Your task to perform on an android device: check storage Image 0: 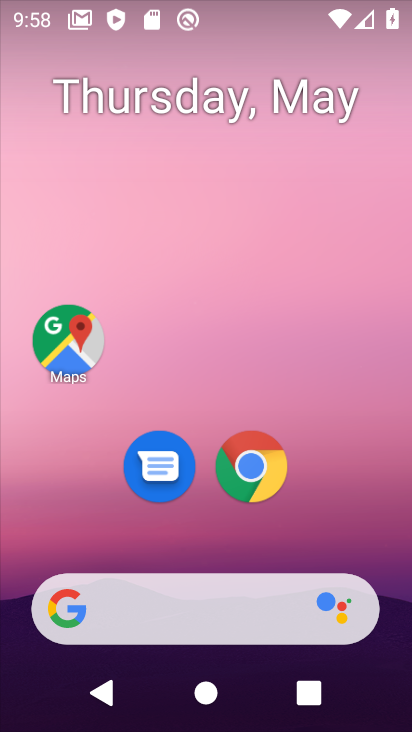
Step 0: drag from (254, 313) to (206, 37)
Your task to perform on an android device: check storage Image 1: 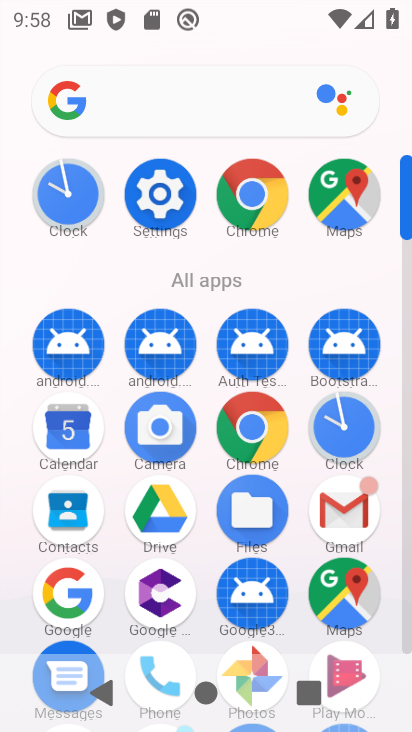
Step 1: click (161, 170)
Your task to perform on an android device: check storage Image 2: 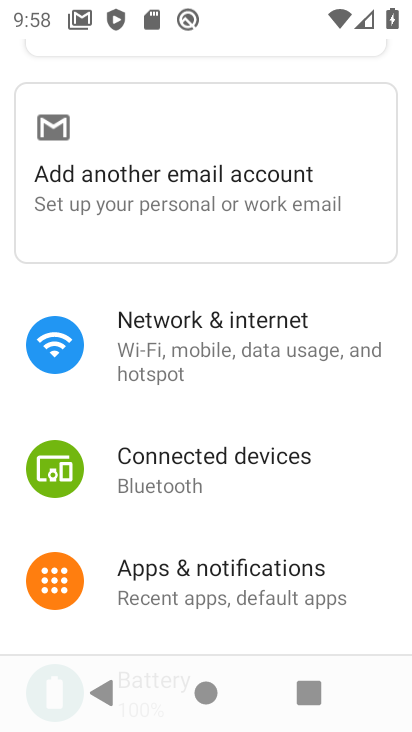
Step 2: drag from (277, 574) to (311, 58)
Your task to perform on an android device: check storage Image 3: 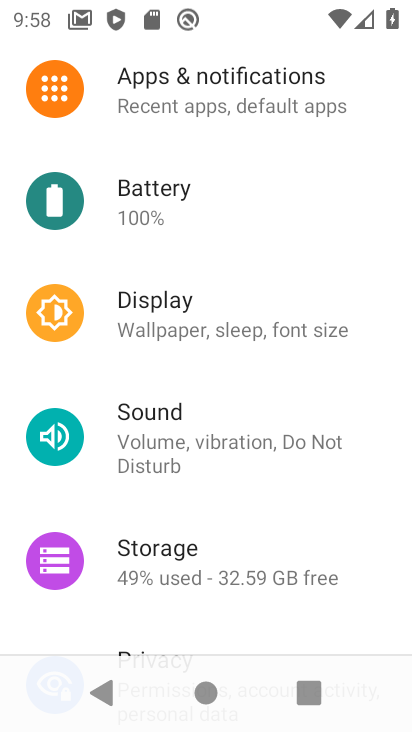
Step 3: drag from (201, 449) to (212, 255)
Your task to perform on an android device: check storage Image 4: 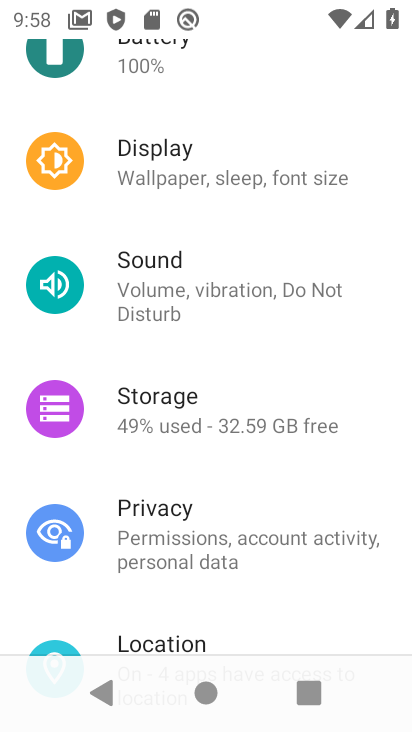
Step 4: click (193, 404)
Your task to perform on an android device: check storage Image 5: 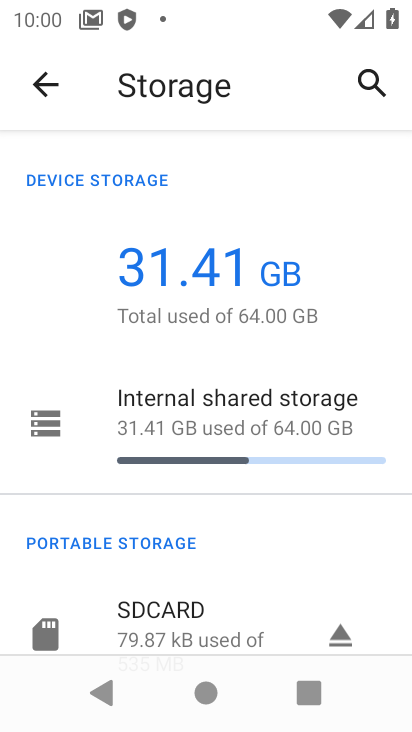
Step 5: task complete